Your task to perform on an android device: Open notification settings Image 0: 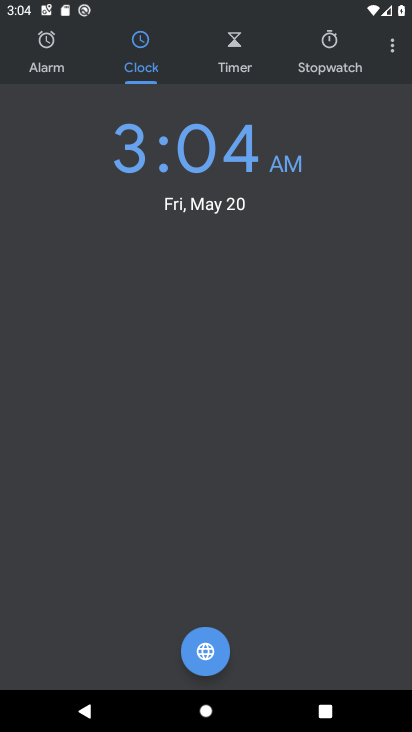
Step 0: press home button
Your task to perform on an android device: Open notification settings Image 1: 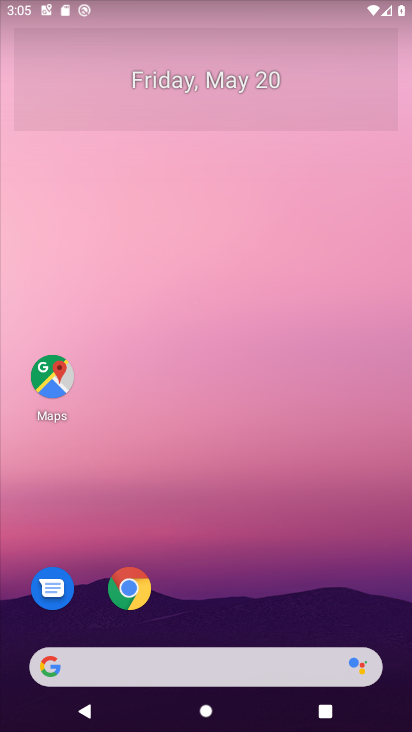
Step 1: drag from (282, 534) to (312, 81)
Your task to perform on an android device: Open notification settings Image 2: 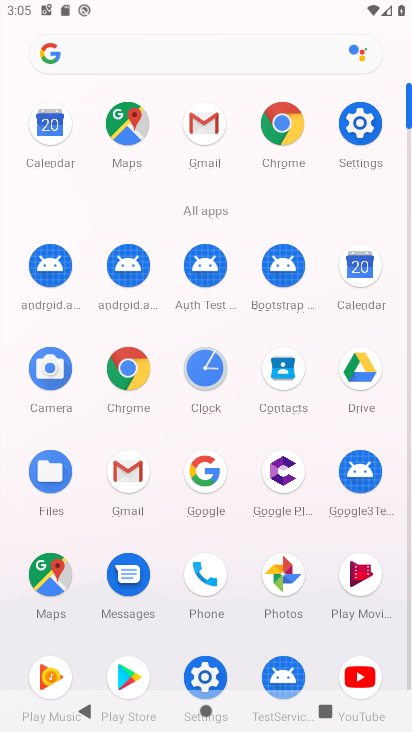
Step 2: click (362, 123)
Your task to perform on an android device: Open notification settings Image 3: 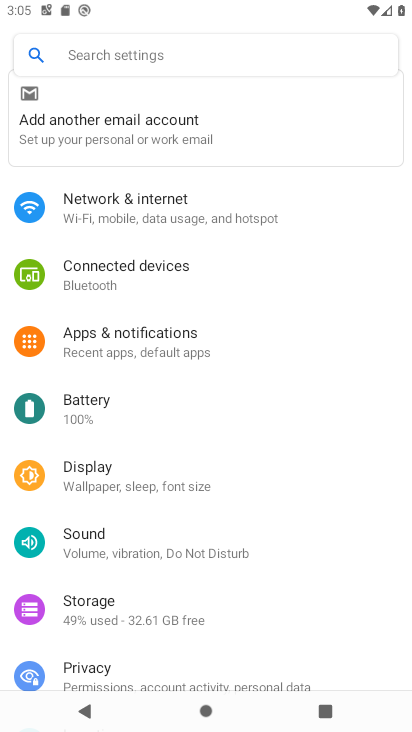
Step 3: click (117, 331)
Your task to perform on an android device: Open notification settings Image 4: 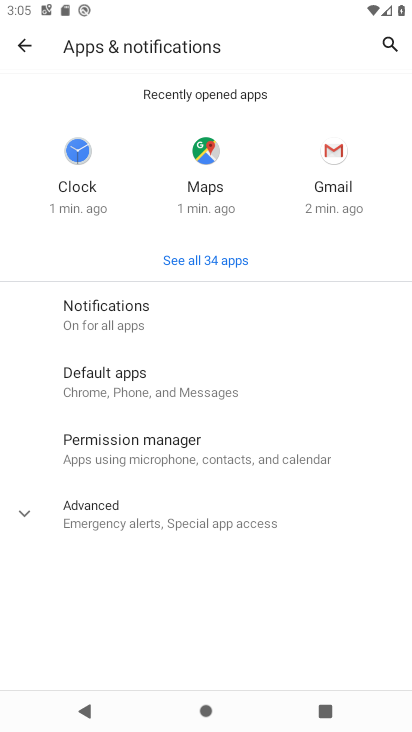
Step 4: click (116, 326)
Your task to perform on an android device: Open notification settings Image 5: 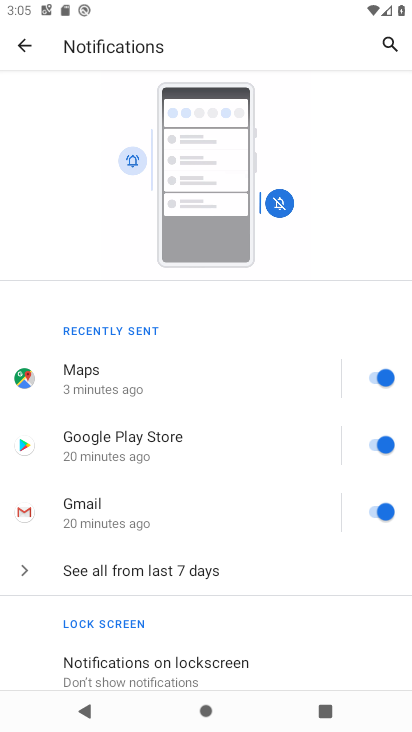
Step 5: task complete